Your task to perform on an android device: Open Youtube and go to "Your channel" Image 0: 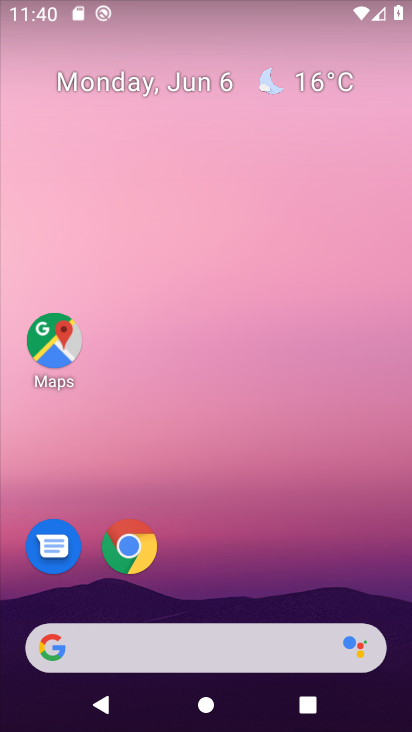
Step 0: drag from (258, 682) to (90, 10)
Your task to perform on an android device: Open Youtube and go to "Your channel" Image 1: 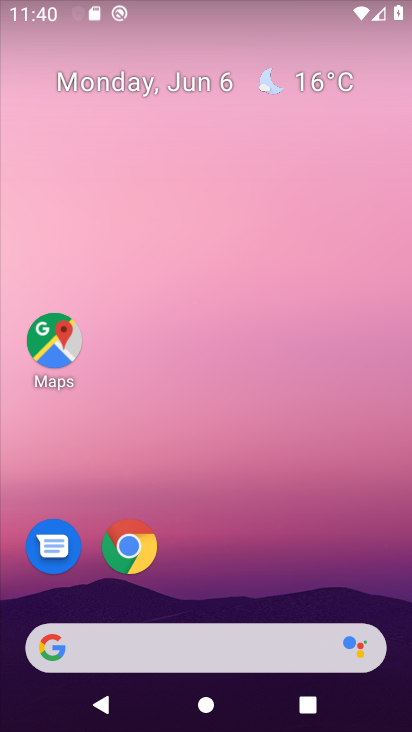
Step 1: drag from (231, 464) to (405, 598)
Your task to perform on an android device: Open Youtube and go to "Your channel" Image 2: 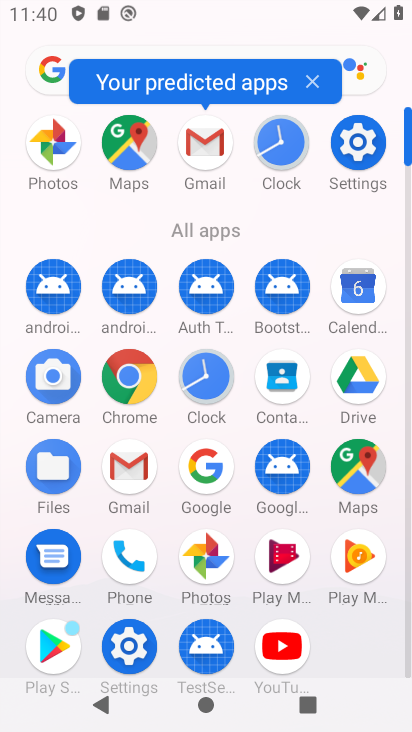
Step 2: click (282, 651)
Your task to perform on an android device: Open Youtube and go to "Your channel" Image 3: 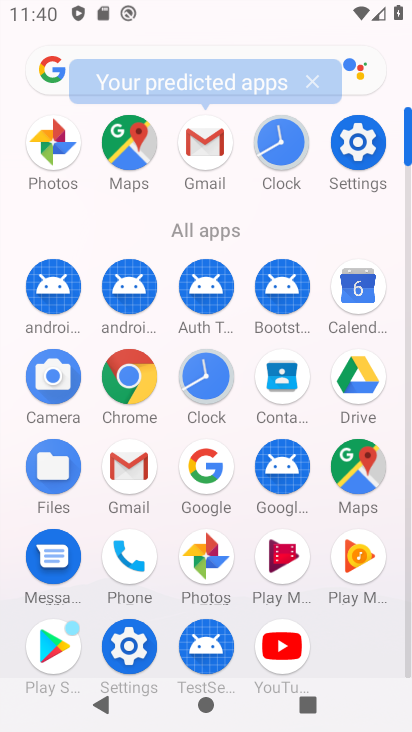
Step 3: click (280, 641)
Your task to perform on an android device: Open Youtube and go to "Your channel" Image 4: 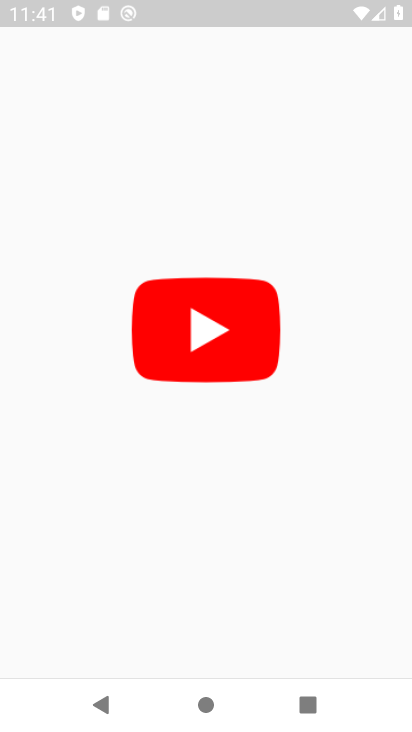
Step 4: click (280, 634)
Your task to perform on an android device: Open Youtube and go to "Your channel" Image 5: 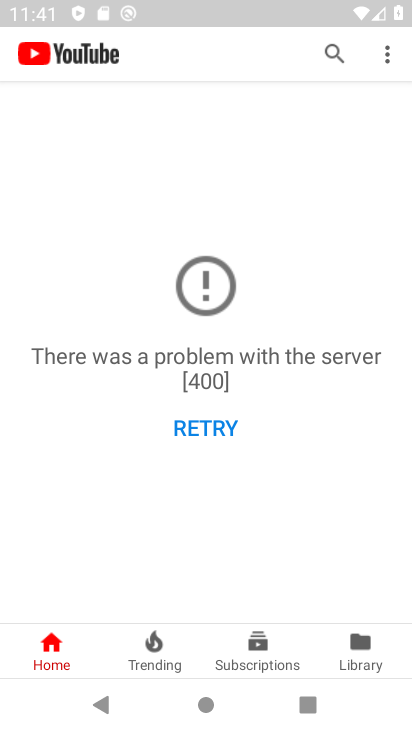
Step 5: task complete